Your task to perform on an android device: add a contact in the contacts app Image 0: 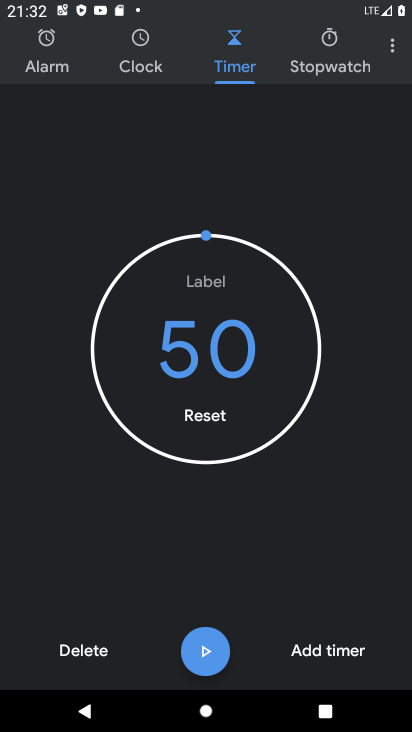
Step 0: press home button
Your task to perform on an android device: add a contact in the contacts app Image 1: 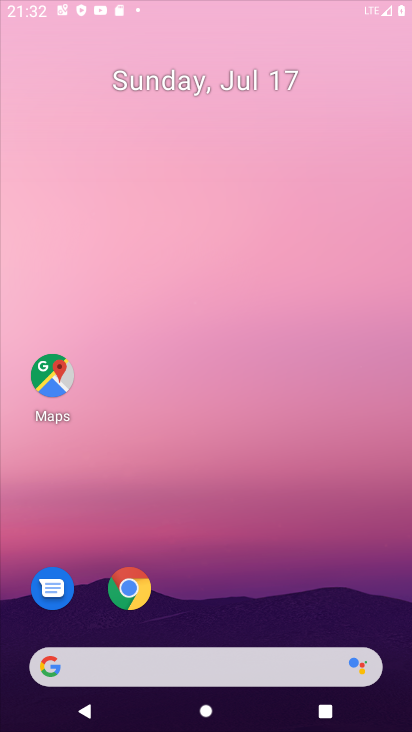
Step 1: drag from (346, 578) to (362, 120)
Your task to perform on an android device: add a contact in the contacts app Image 2: 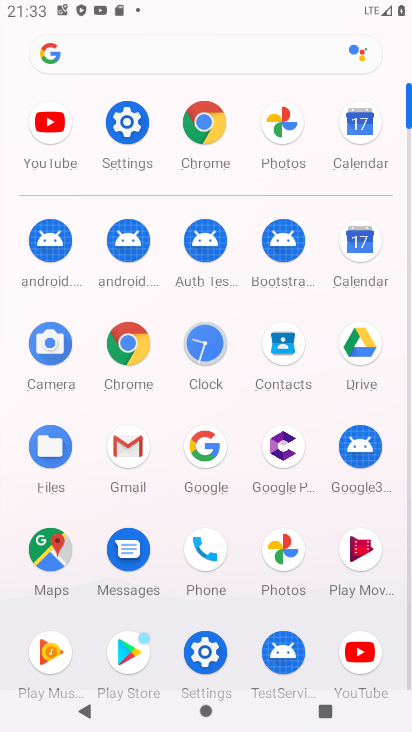
Step 2: click (287, 338)
Your task to perform on an android device: add a contact in the contacts app Image 3: 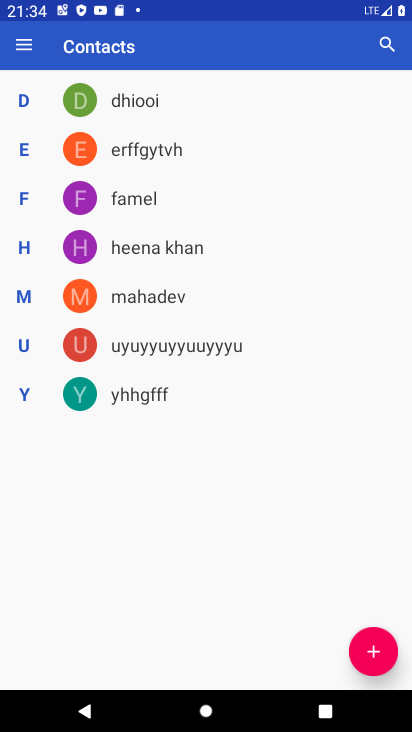
Step 3: click (374, 654)
Your task to perform on an android device: add a contact in the contacts app Image 4: 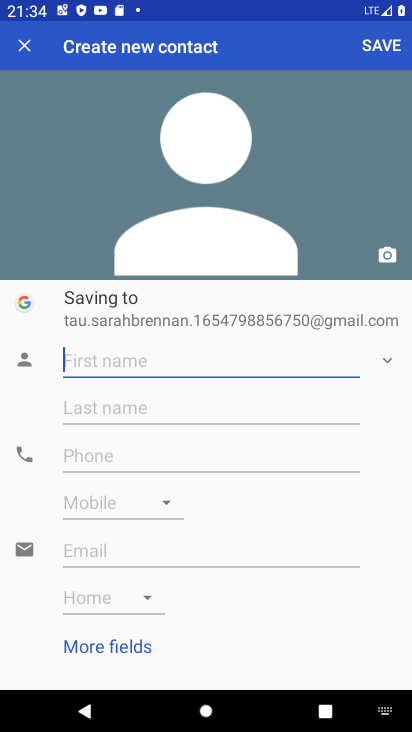
Step 4: click (215, 364)
Your task to perform on an android device: add a contact in the contacts app Image 5: 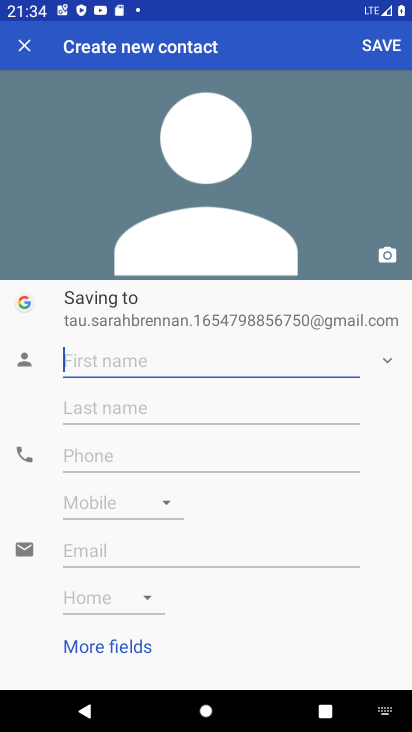
Step 5: type "bnnnnv"
Your task to perform on an android device: add a contact in the contacts app Image 6: 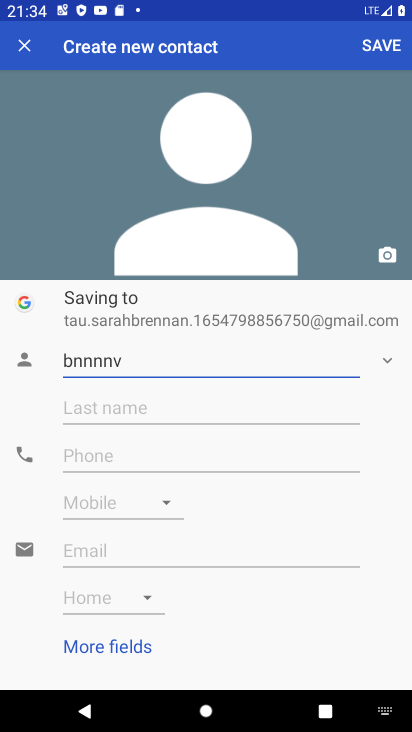
Step 6: click (151, 440)
Your task to perform on an android device: add a contact in the contacts app Image 7: 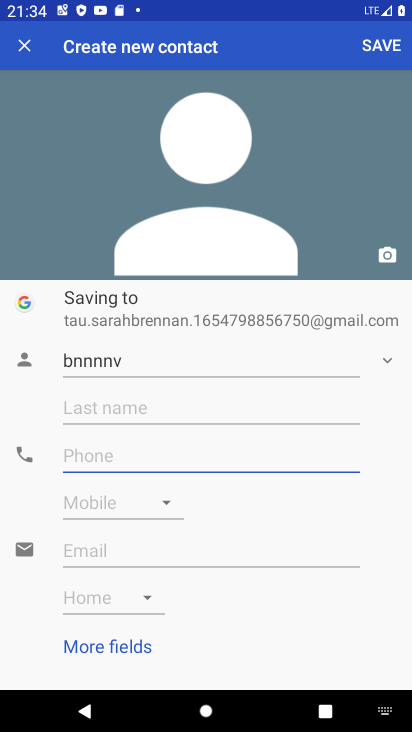
Step 7: type "6575648]]p-"
Your task to perform on an android device: add a contact in the contacts app Image 8: 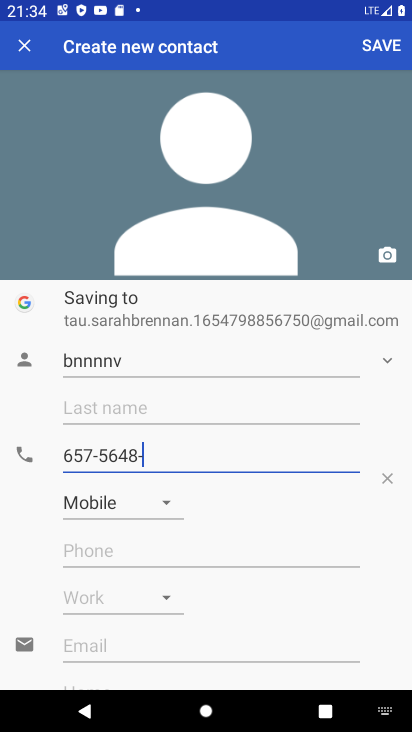
Step 8: click (370, 32)
Your task to perform on an android device: add a contact in the contacts app Image 9: 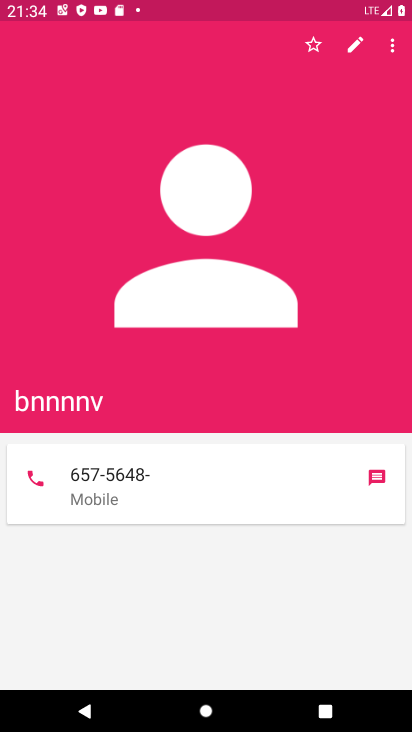
Step 9: task complete